Your task to perform on an android device: turn on the 24-hour format for clock Image 0: 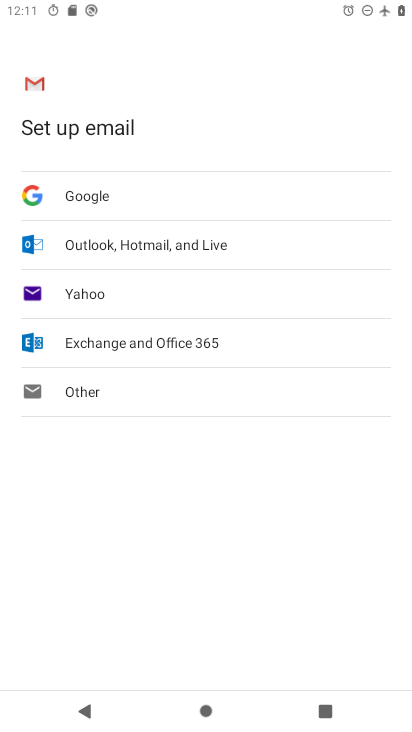
Step 0: press home button
Your task to perform on an android device: turn on the 24-hour format for clock Image 1: 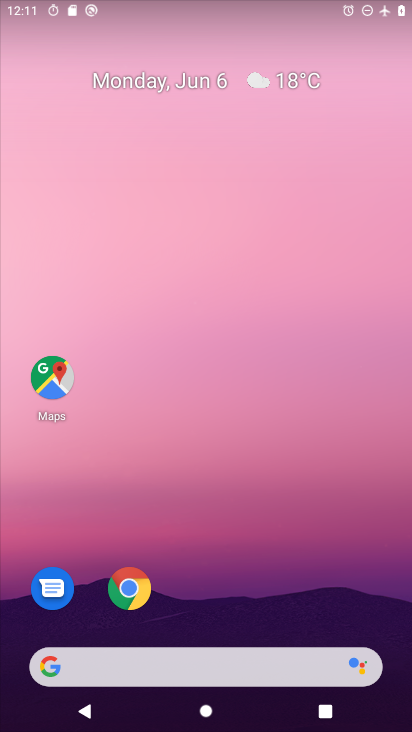
Step 1: drag from (363, 593) to (362, 134)
Your task to perform on an android device: turn on the 24-hour format for clock Image 2: 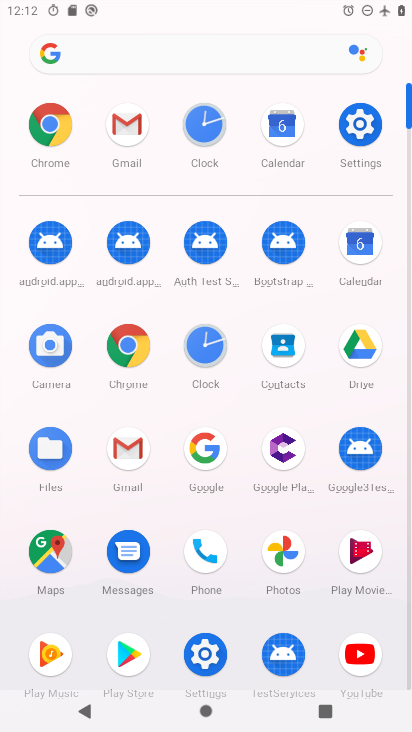
Step 2: click (203, 357)
Your task to perform on an android device: turn on the 24-hour format for clock Image 3: 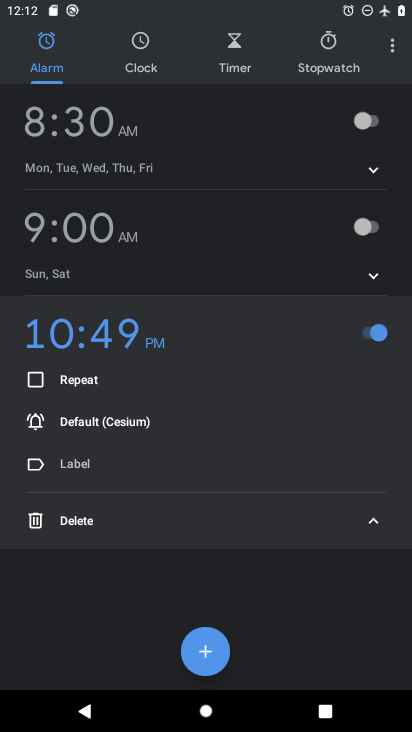
Step 3: click (391, 55)
Your task to perform on an android device: turn on the 24-hour format for clock Image 4: 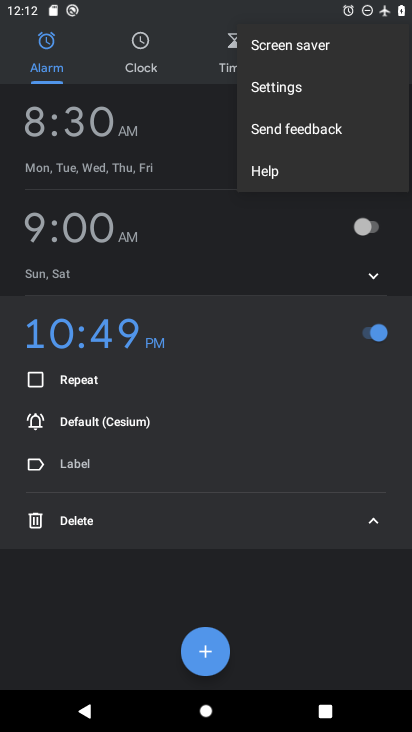
Step 4: click (317, 102)
Your task to perform on an android device: turn on the 24-hour format for clock Image 5: 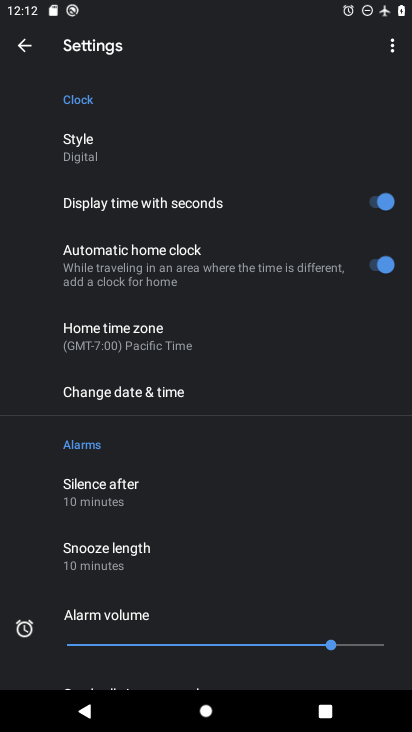
Step 5: drag from (309, 430) to (301, 321)
Your task to perform on an android device: turn on the 24-hour format for clock Image 6: 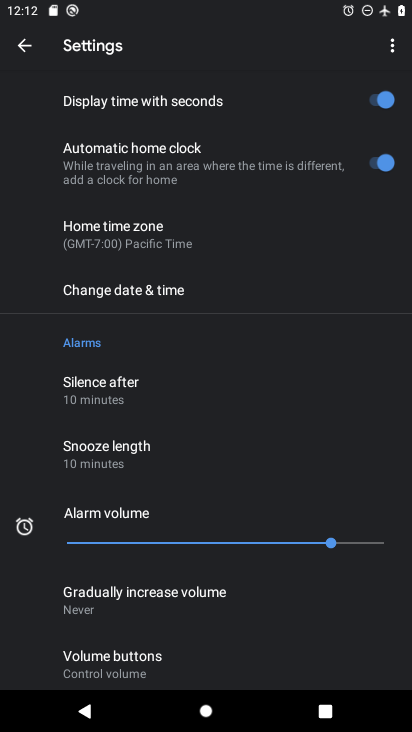
Step 6: drag from (295, 449) to (295, 321)
Your task to perform on an android device: turn on the 24-hour format for clock Image 7: 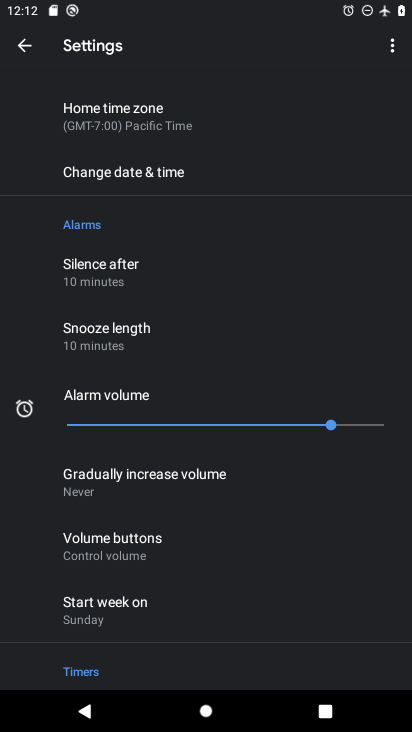
Step 7: drag from (312, 495) to (325, 392)
Your task to perform on an android device: turn on the 24-hour format for clock Image 8: 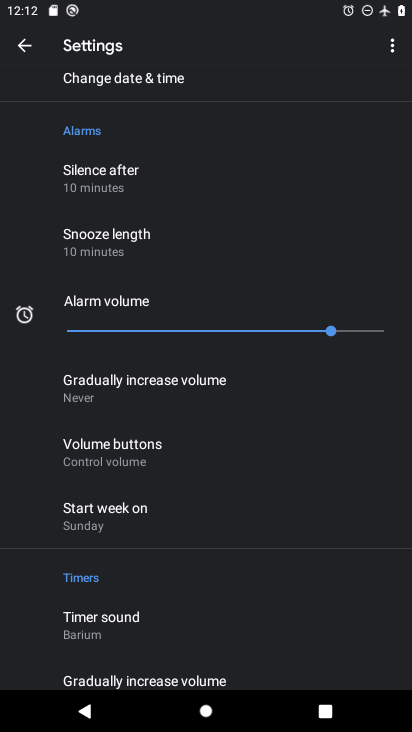
Step 8: drag from (339, 464) to (341, 380)
Your task to perform on an android device: turn on the 24-hour format for clock Image 9: 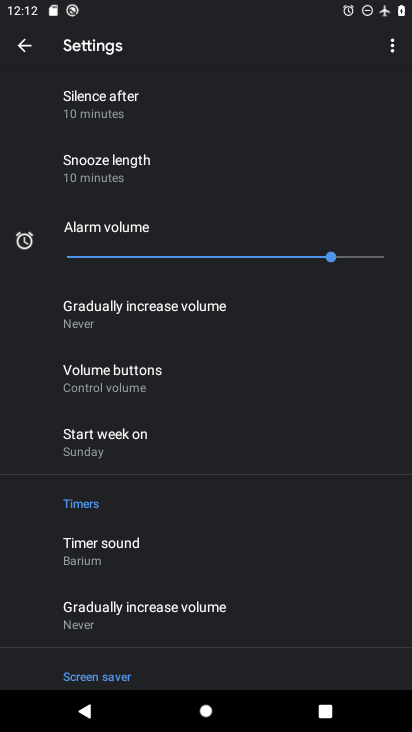
Step 9: drag from (343, 176) to (363, 286)
Your task to perform on an android device: turn on the 24-hour format for clock Image 10: 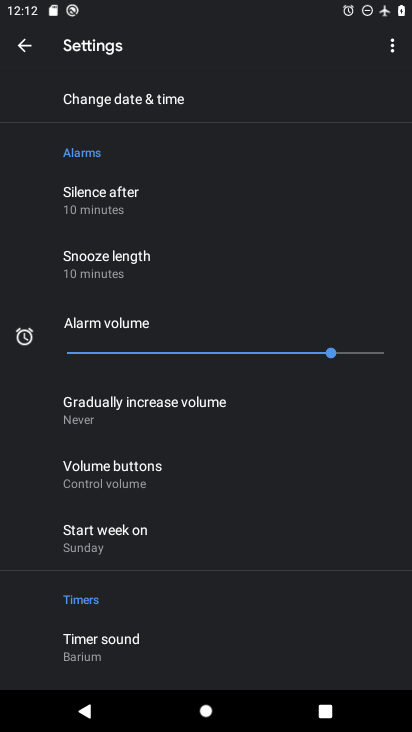
Step 10: drag from (377, 172) to (372, 277)
Your task to perform on an android device: turn on the 24-hour format for clock Image 11: 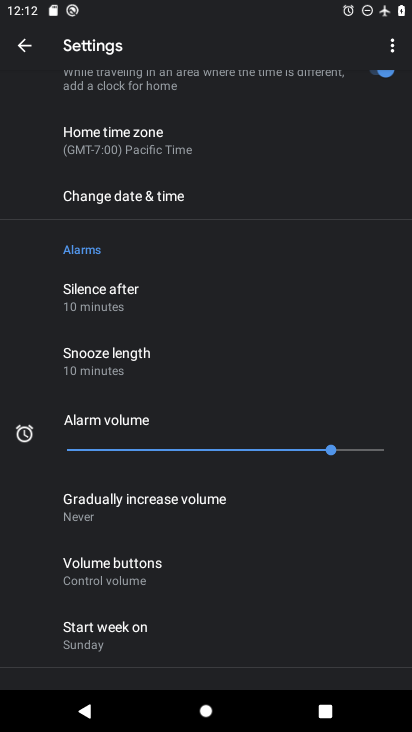
Step 11: drag from (364, 179) to (362, 275)
Your task to perform on an android device: turn on the 24-hour format for clock Image 12: 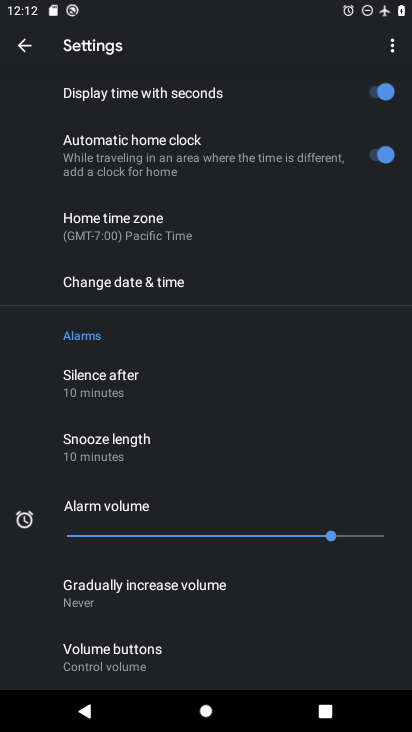
Step 12: drag from (341, 230) to (338, 304)
Your task to perform on an android device: turn on the 24-hour format for clock Image 13: 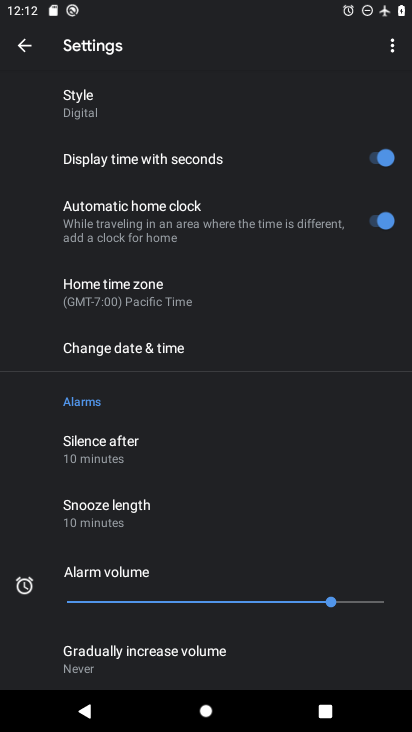
Step 13: click (270, 360)
Your task to perform on an android device: turn on the 24-hour format for clock Image 14: 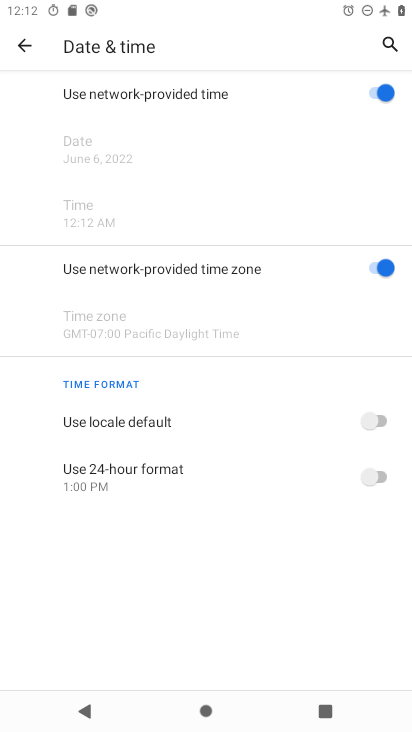
Step 14: click (372, 477)
Your task to perform on an android device: turn on the 24-hour format for clock Image 15: 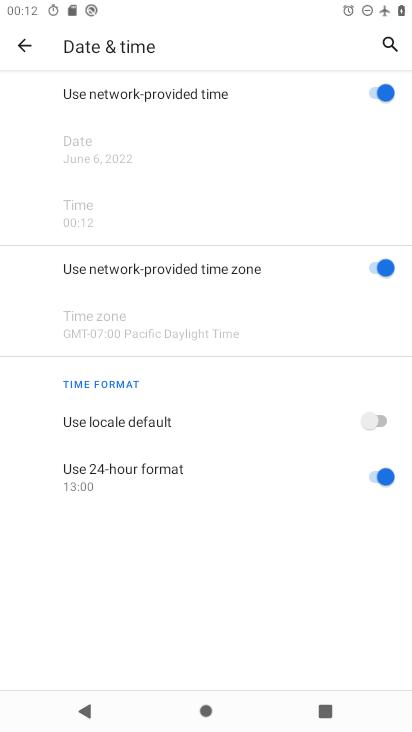
Step 15: task complete